Your task to perform on an android device: turn pop-ups on in chrome Image 0: 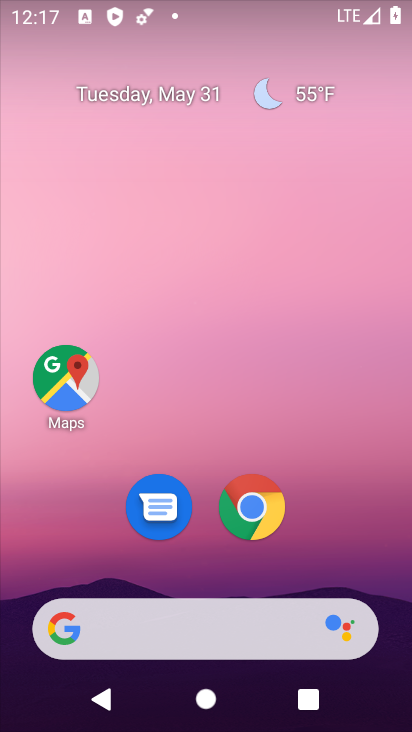
Step 0: drag from (392, 615) to (277, 6)
Your task to perform on an android device: turn pop-ups on in chrome Image 1: 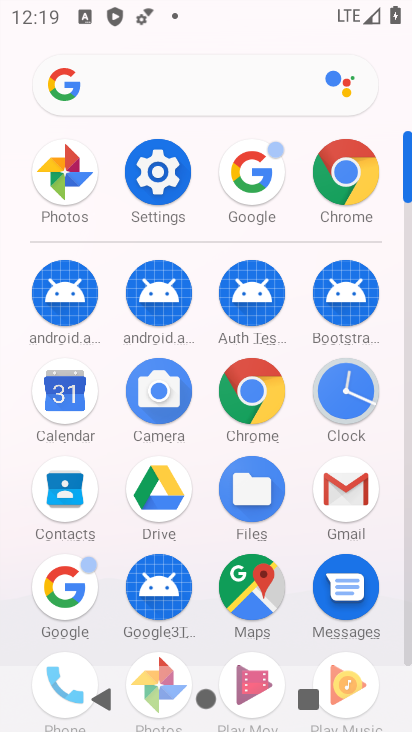
Step 1: click (254, 409)
Your task to perform on an android device: turn pop-ups on in chrome Image 2: 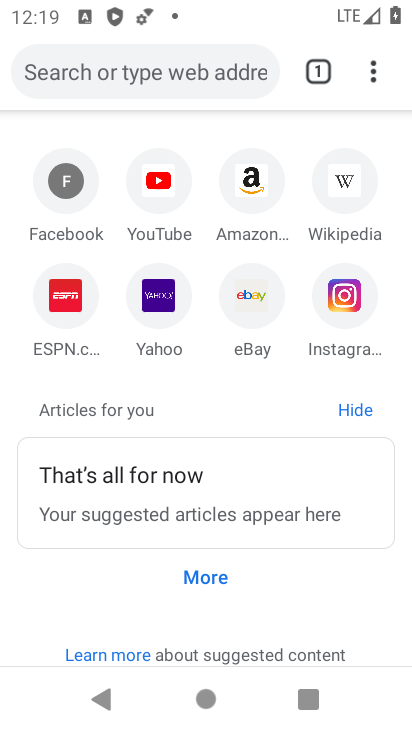
Step 2: click (379, 69)
Your task to perform on an android device: turn pop-ups on in chrome Image 3: 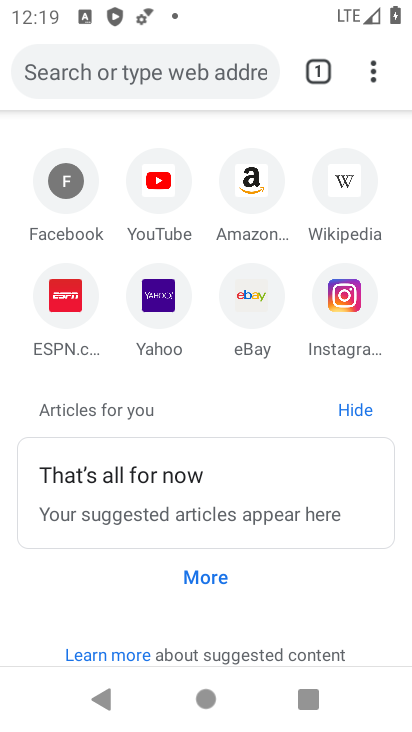
Step 3: click (369, 63)
Your task to perform on an android device: turn pop-ups on in chrome Image 4: 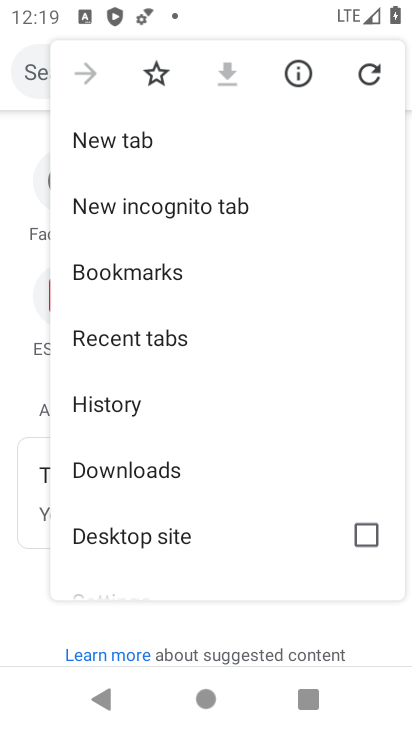
Step 4: drag from (185, 496) to (205, 125)
Your task to perform on an android device: turn pop-ups on in chrome Image 5: 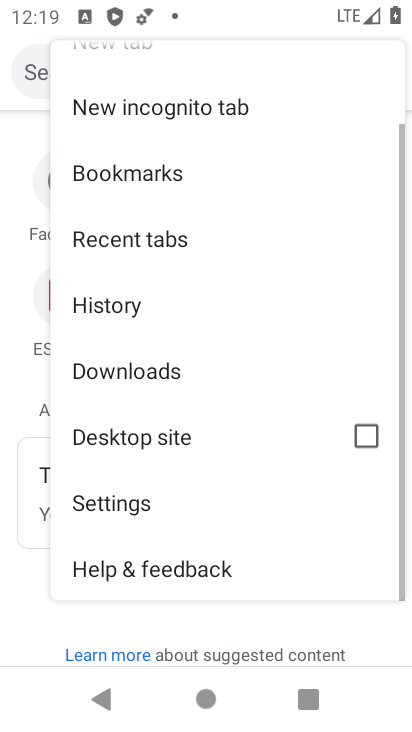
Step 5: click (145, 505)
Your task to perform on an android device: turn pop-ups on in chrome Image 6: 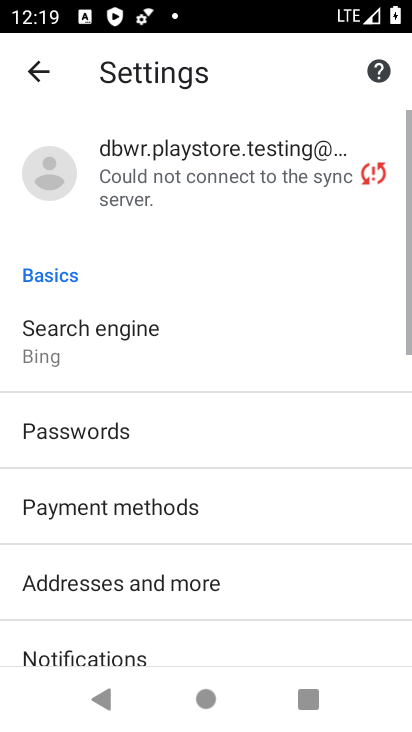
Step 6: drag from (140, 609) to (189, 103)
Your task to perform on an android device: turn pop-ups on in chrome Image 7: 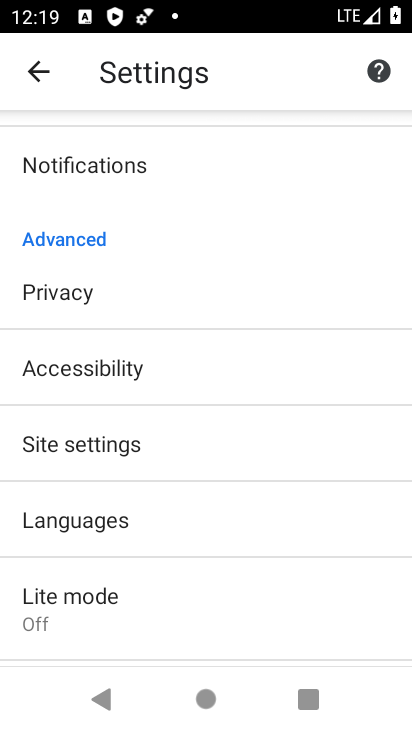
Step 7: click (168, 461)
Your task to perform on an android device: turn pop-ups on in chrome Image 8: 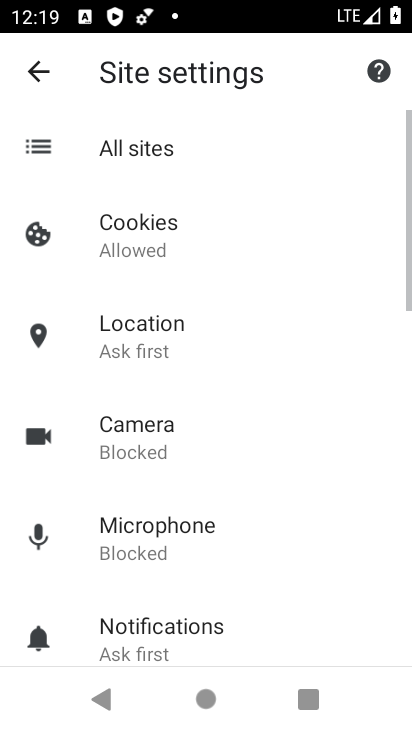
Step 8: drag from (153, 593) to (227, 183)
Your task to perform on an android device: turn pop-ups on in chrome Image 9: 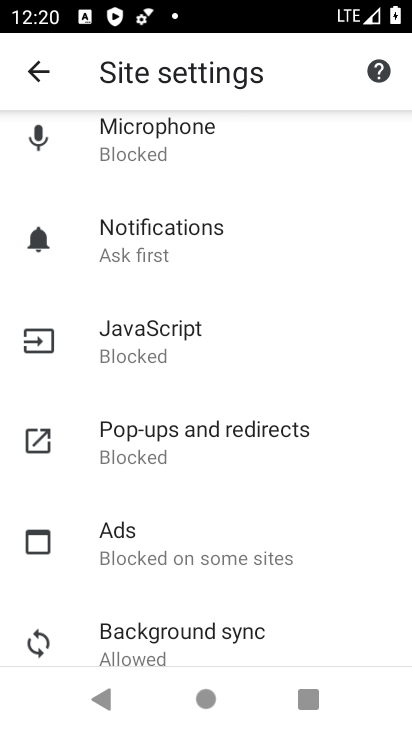
Step 9: click (200, 436)
Your task to perform on an android device: turn pop-ups on in chrome Image 10: 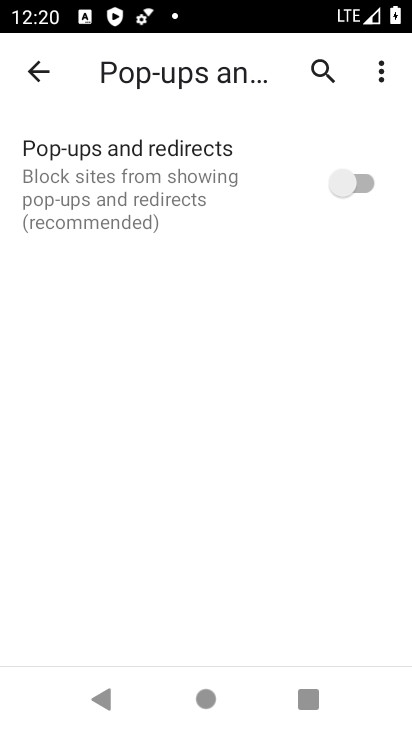
Step 10: click (369, 203)
Your task to perform on an android device: turn pop-ups on in chrome Image 11: 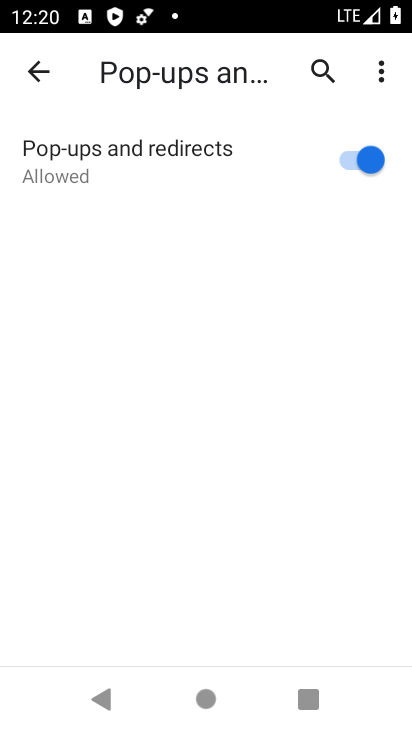
Step 11: task complete